Your task to perform on an android device: turn on airplane mode Image 0: 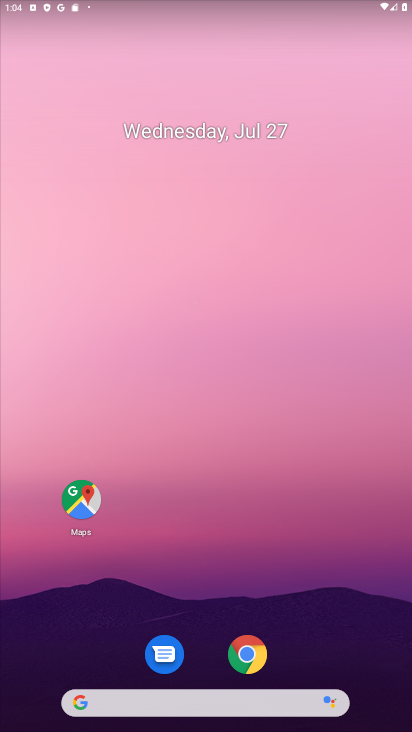
Step 0: press home button
Your task to perform on an android device: turn on airplane mode Image 1: 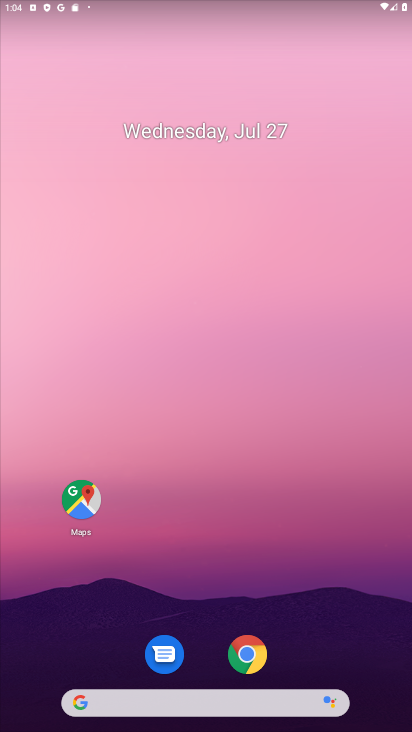
Step 1: drag from (278, 636) to (314, 105)
Your task to perform on an android device: turn on airplane mode Image 2: 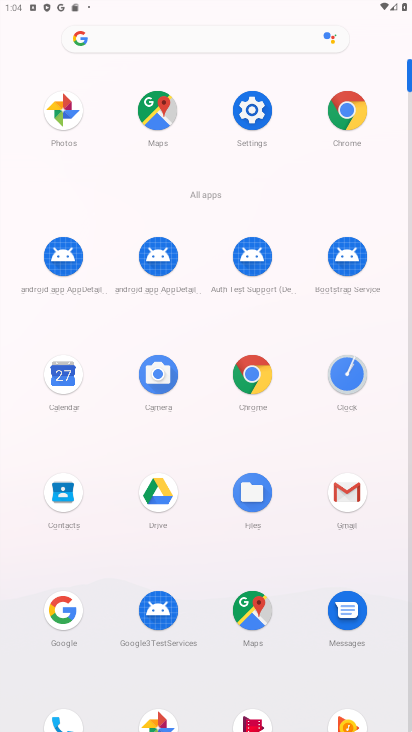
Step 2: click (253, 89)
Your task to perform on an android device: turn on airplane mode Image 3: 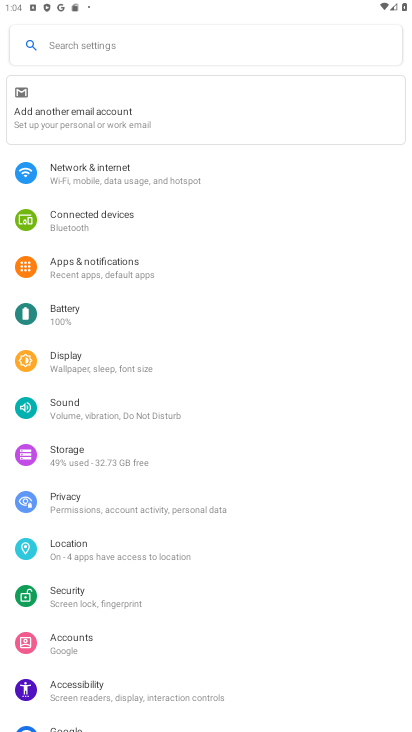
Step 3: click (122, 188)
Your task to perform on an android device: turn on airplane mode Image 4: 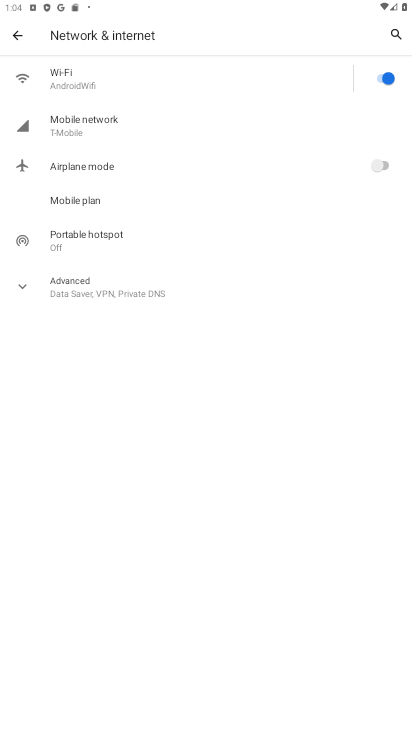
Step 4: click (119, 167)
Your task to perform on an android device: turn on airplane mode Image 5: 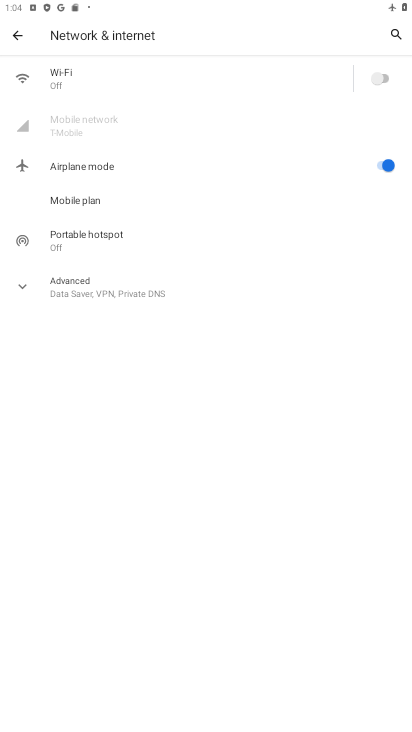
Step 5: task complete